Your task to perform on an android device: Search for "bose soundlink mini" on target.com, select the first entry, add it to the cart, then select checkout. Image 0: 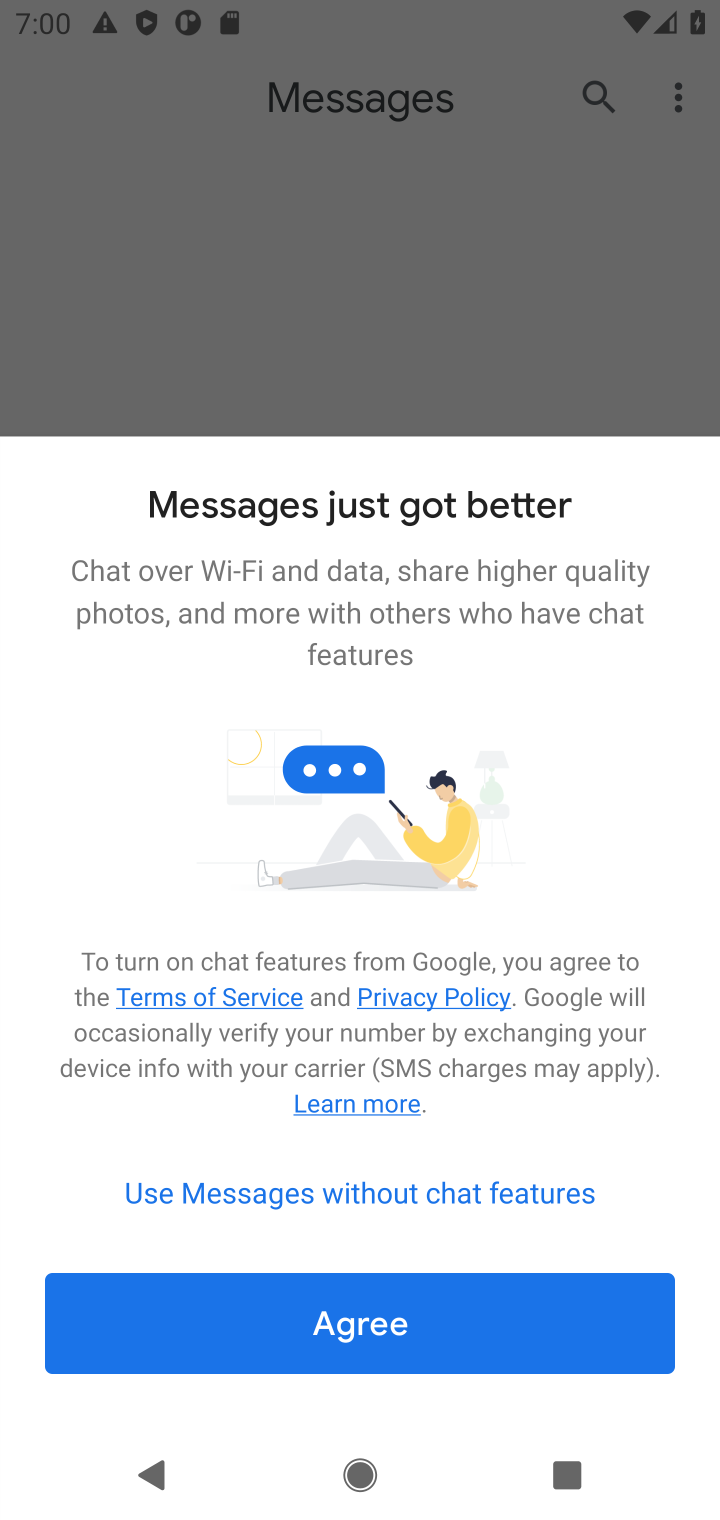
Step 0: press home button
Your task to perform on an android device: Search for "bose soundlink mini" on target.com, select the first entry, add it to the cart, then select checkout. Image 1: 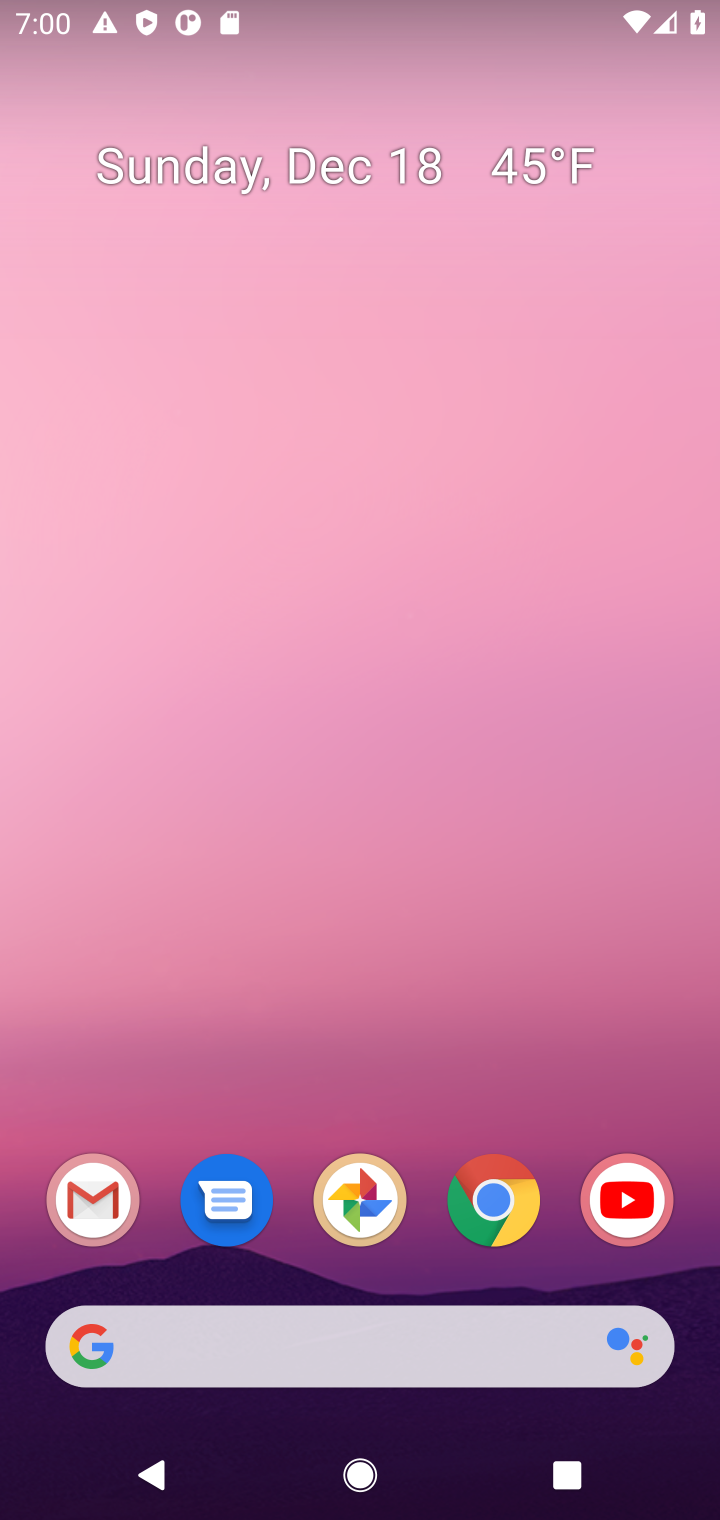
Step 1: click (496, 1212)
Your task to perform on an android device: Search for "bose soundlink mini" on target.com, select the first entry, add it to the cart, then select checkout. Image 2: 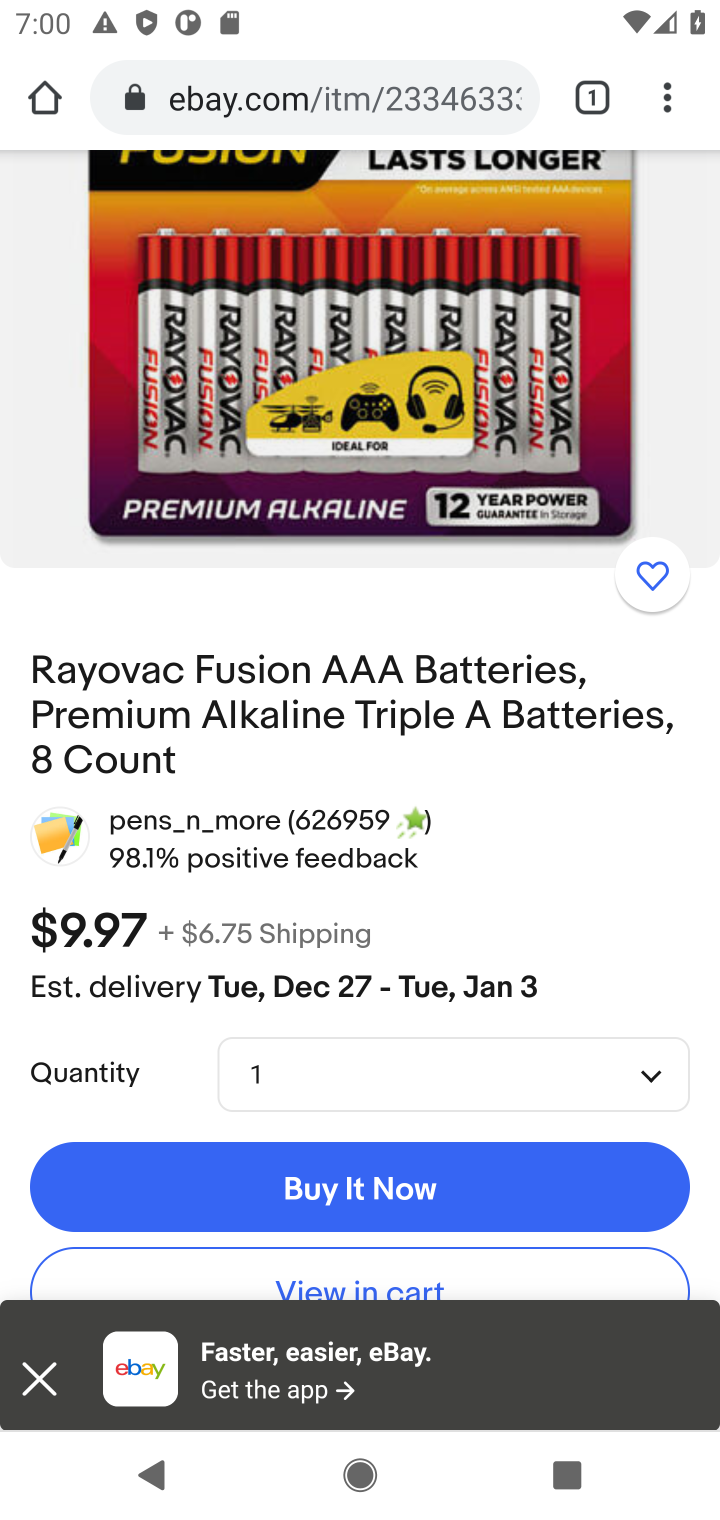
Step 2: click (304, 98)
Your task to perform on an android device: Search for "bose soundlink mini" on target.com, select the first entry, add it to the cart, then select checkout. Image 3: 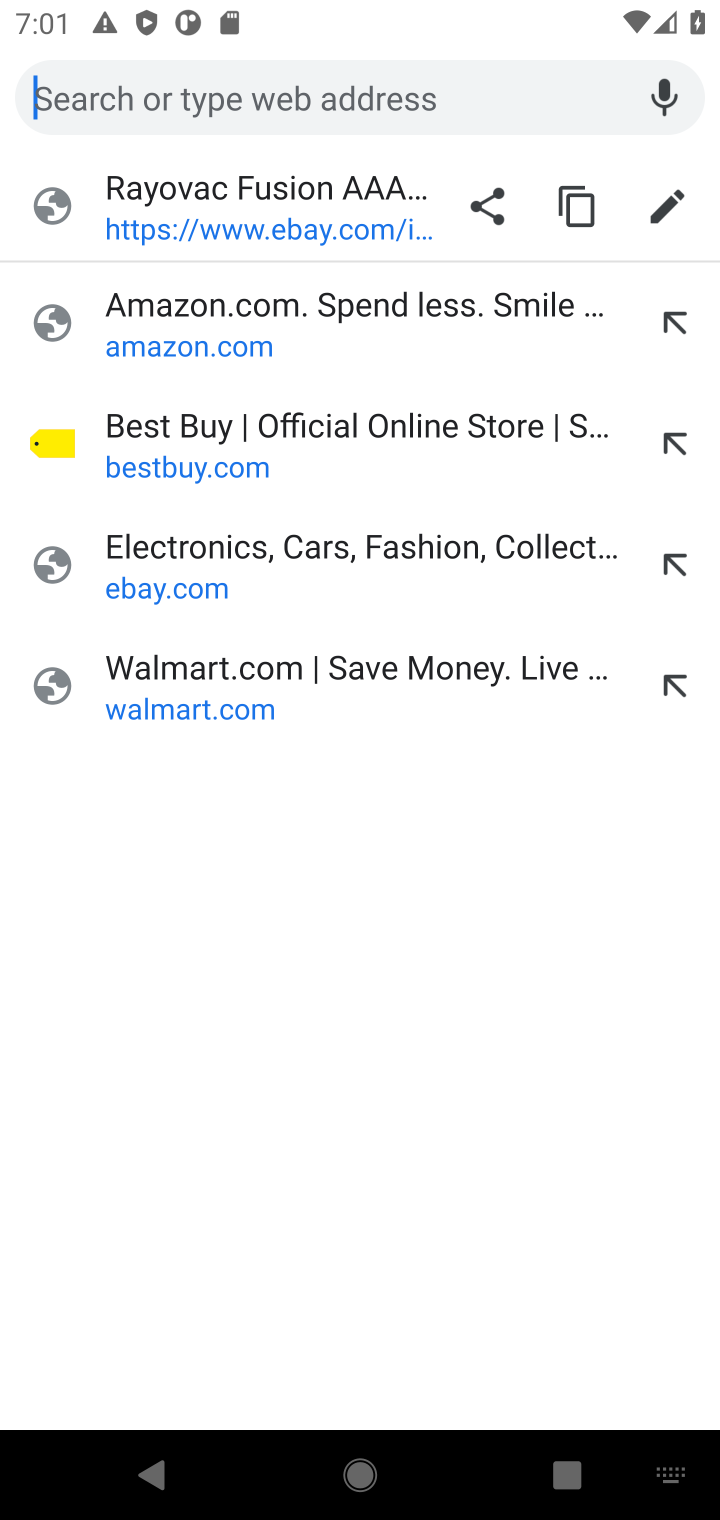
Step 3: type "target.com"
Your task to perform on an android device: Search for "bose soundlink mini" on target.com, select the first entry, add it to the cart, then select checkout. Image 4: 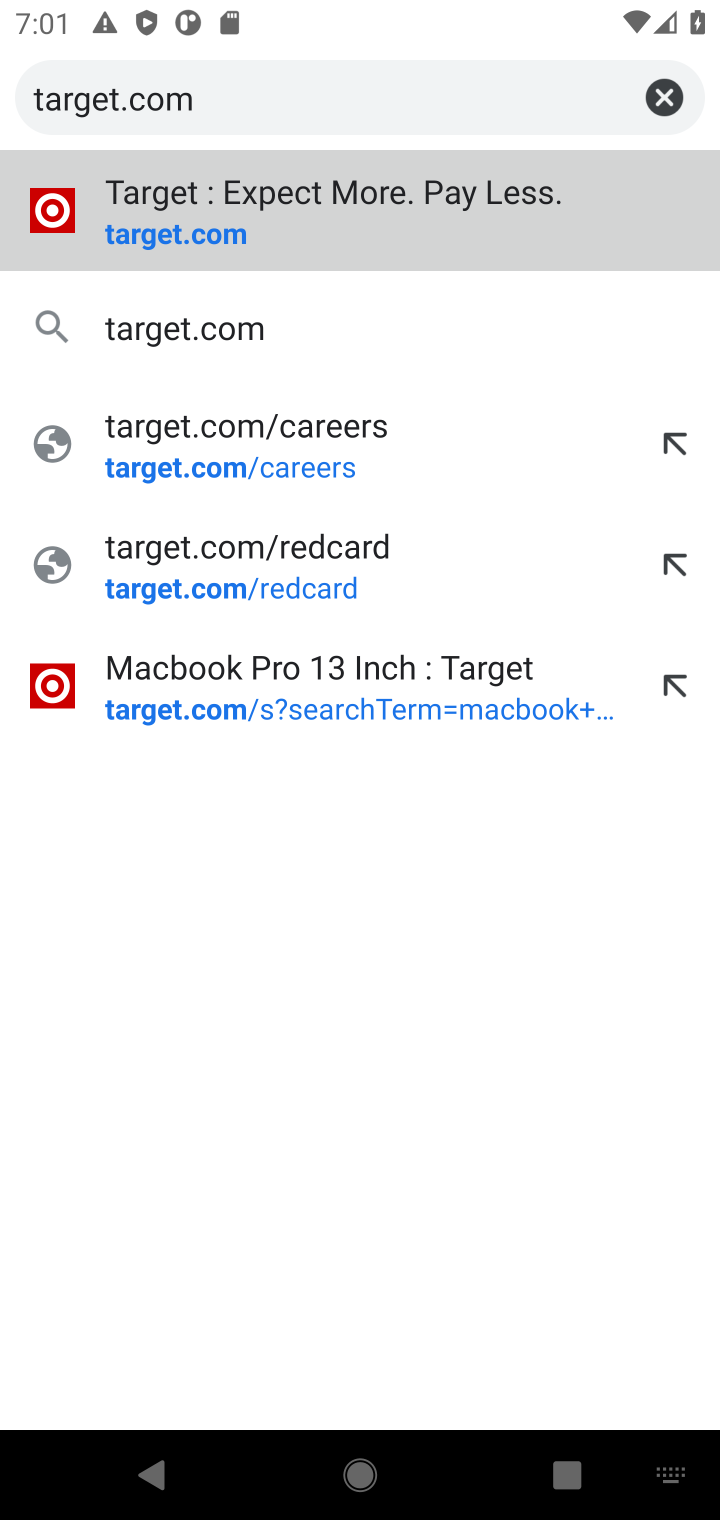
Step 4: click (207, 242)
Your task to perform on an android device: Search for "bose soundlink mini" on target.com, select the first entry, add it to the cart, then select checkout. Image 5: 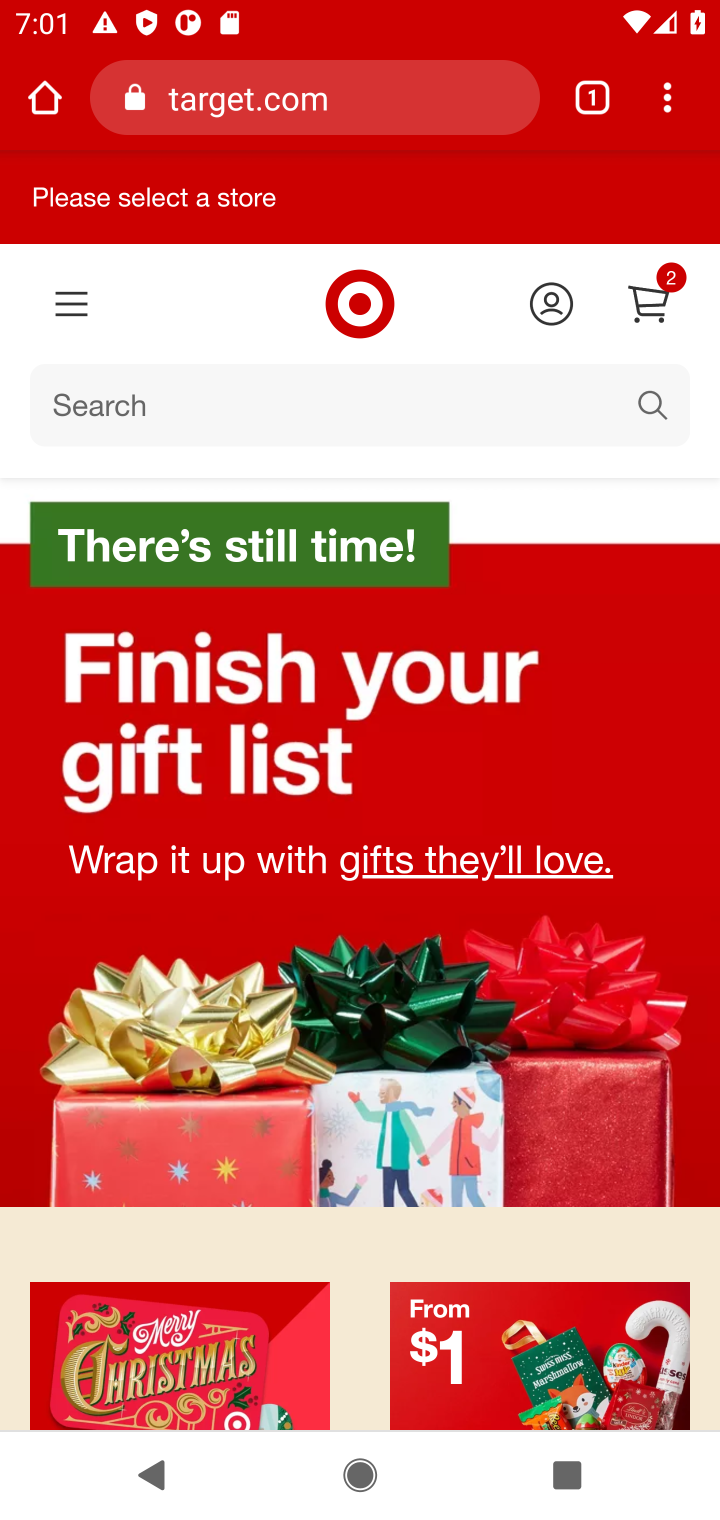
Step 5: click (83, 402)
Your task to perform on an android device: Search for "bose soundlink mini" on target.com, select the first entry, add it to the cart, then select checkout. Image 6: 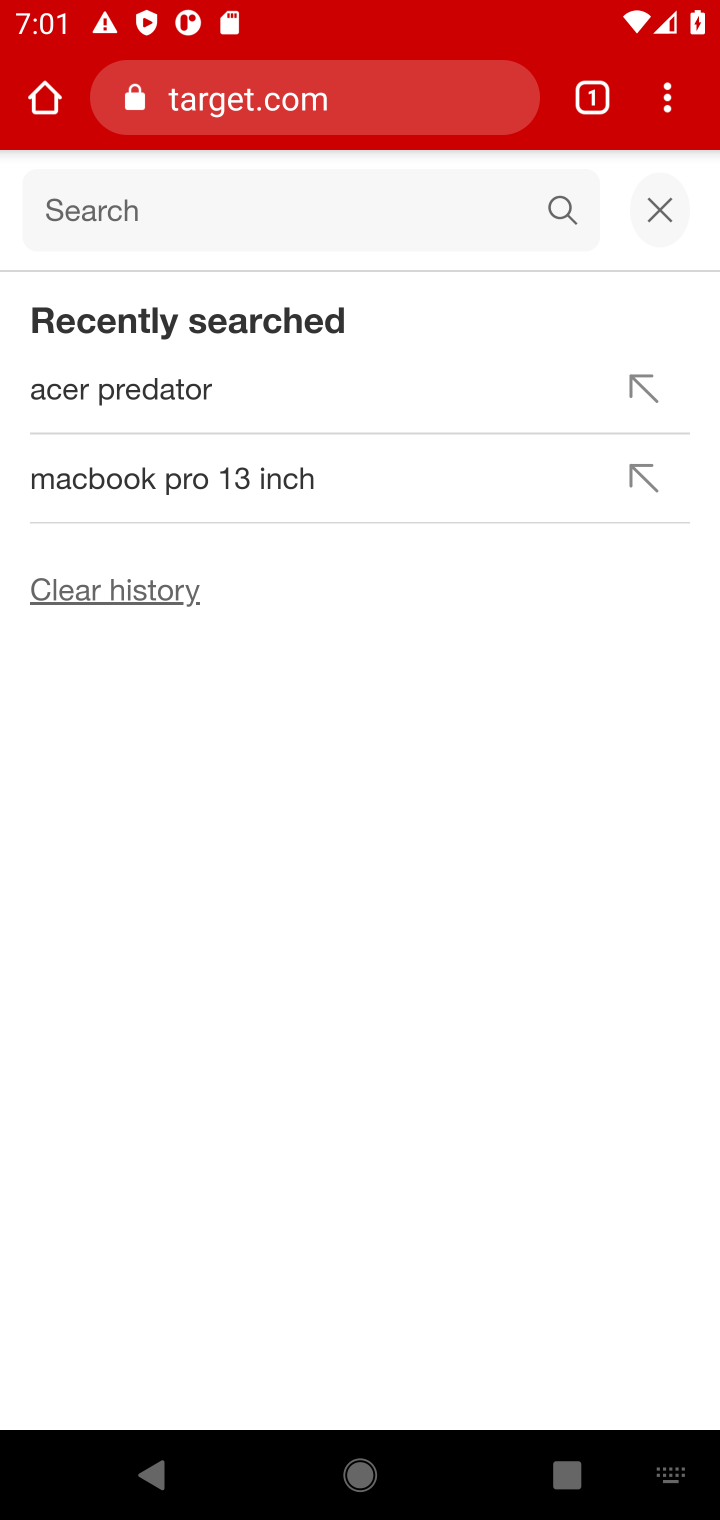
Step 6: type "bose soundlink mini"
Your task to perform on an android device: Search for "bose soundlink mini" on target.com, select the first entry, add it to the cart, then select checkout. Image 7: 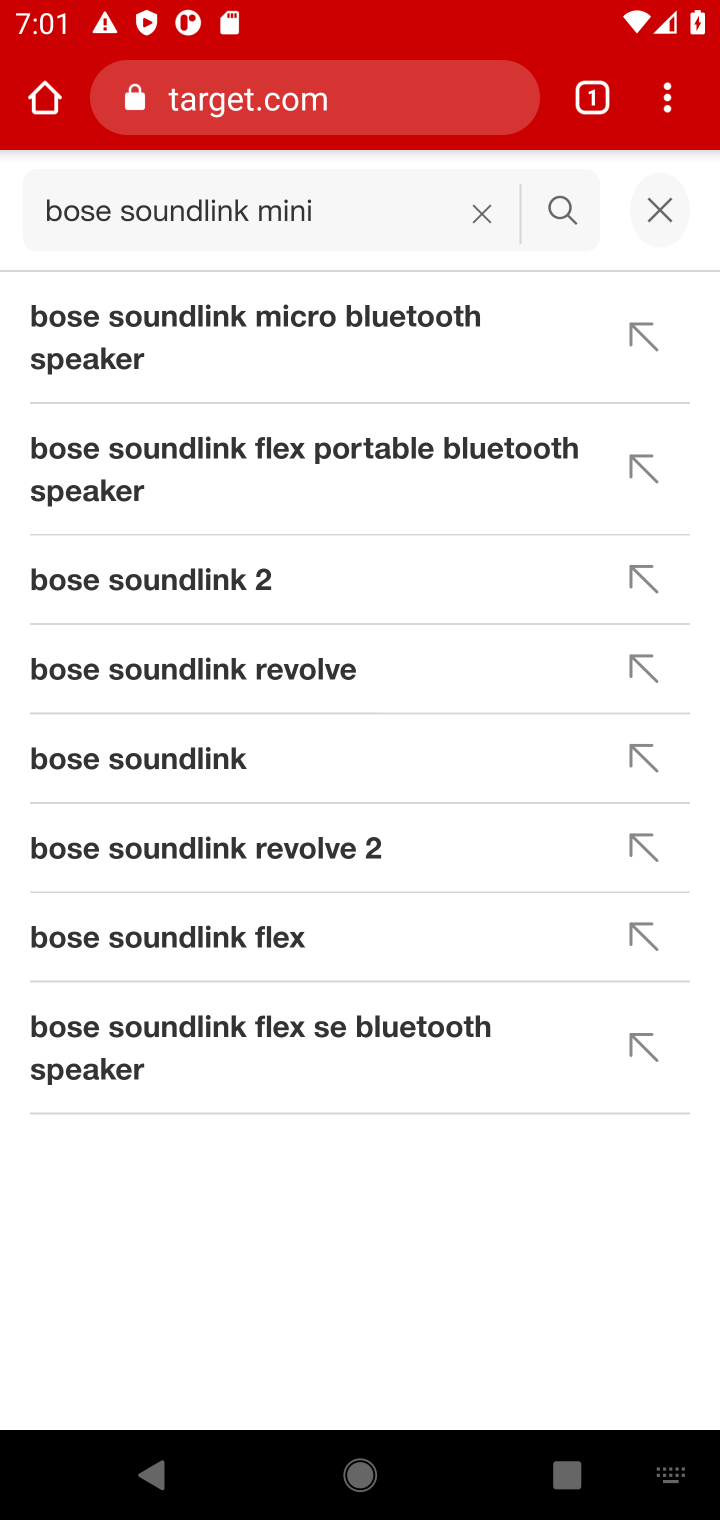
Step 7: click (559, 214)
Your task to perform on an android device: Search for "bose soundlink mini" on target.com, select the first entry, add it to the cart, then select checkout. Image 8: 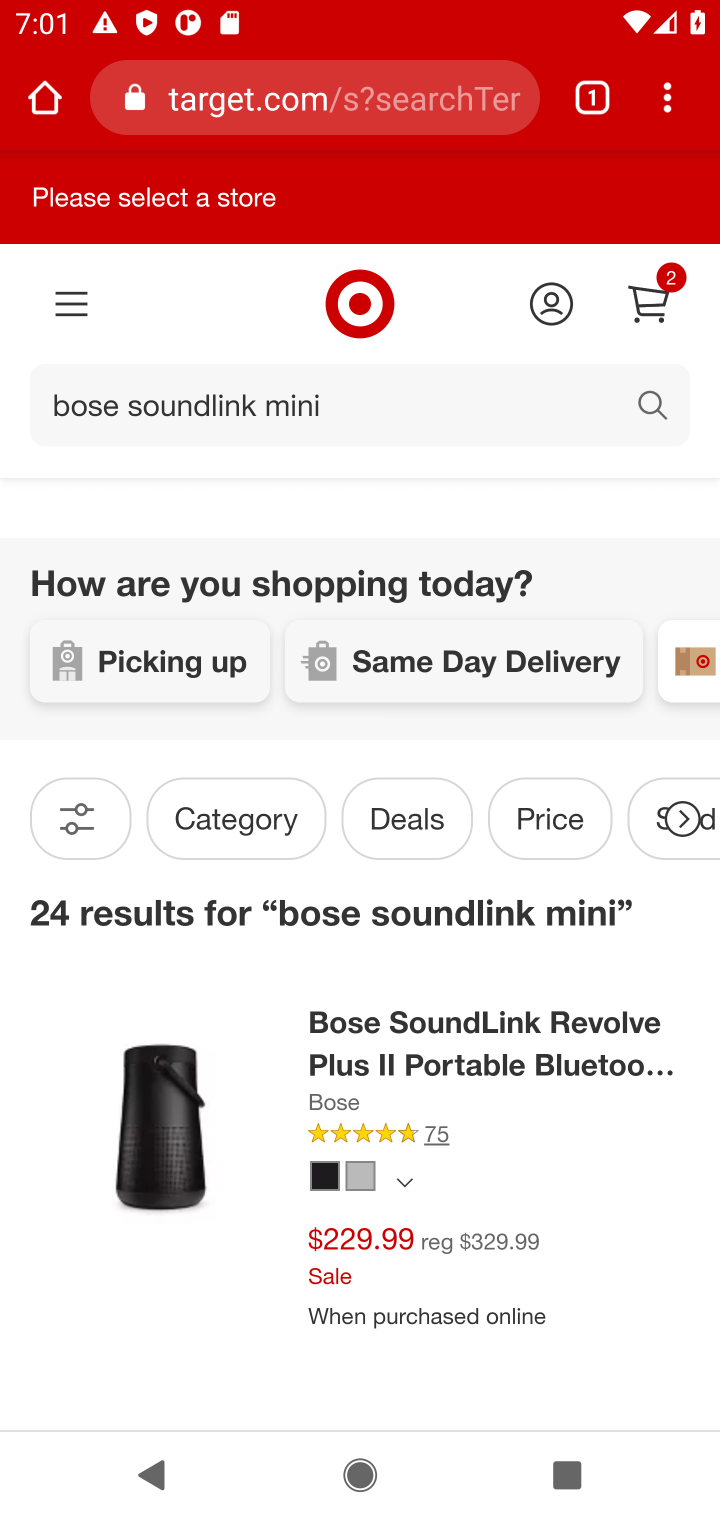
Step 8: task complete